Your task to perform on an android device: change the clock display to show seconds Image 0: 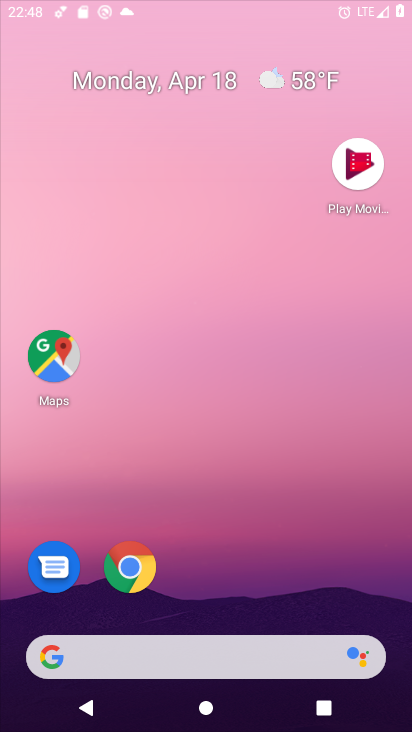
Step 0: click (256, 128)
Your task to perform on an android device: change the clock display to show seconds Image 1: 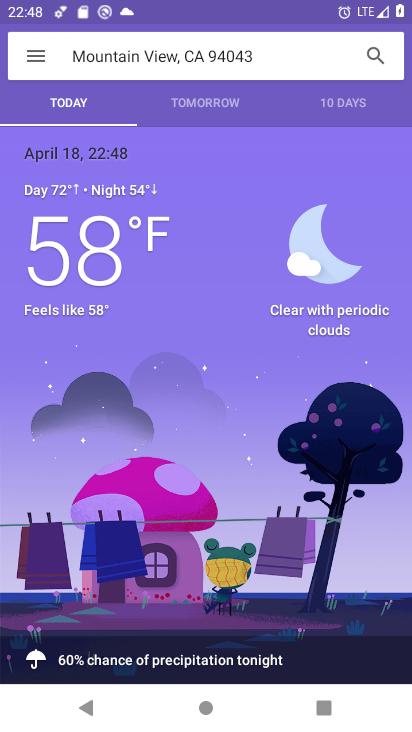
Step 1: press home button
Your task to perform on an android device: change the clock display to show seconds Image 2: 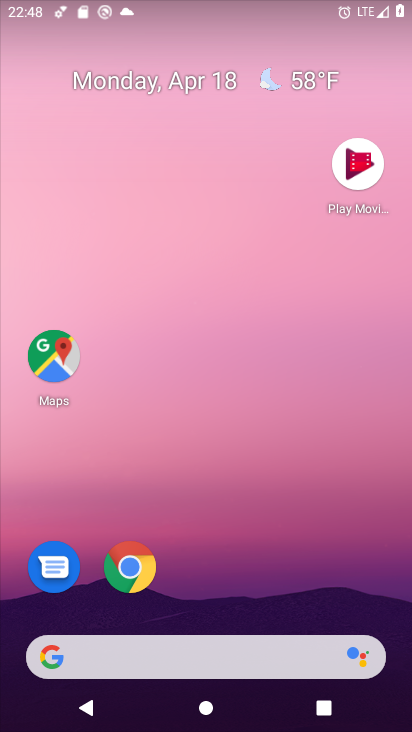
Step 2: drag from (152, 581) to (210, 131)
Your task to perform on an android device: change the clock display to show seconds Image 3: 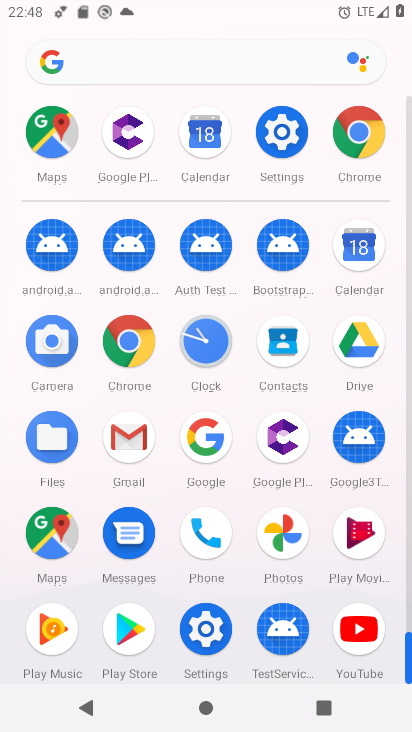
Step 3: click (192, 343)
Your task to perform on an android device: change the clock display to show seconds Image 4: 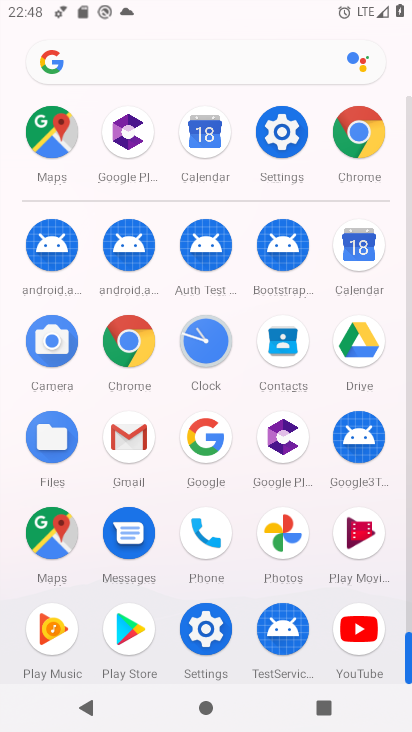
Step 4: click (191, 342)
Your task to perform on an android device: change the clock display to show seconds Image 5: 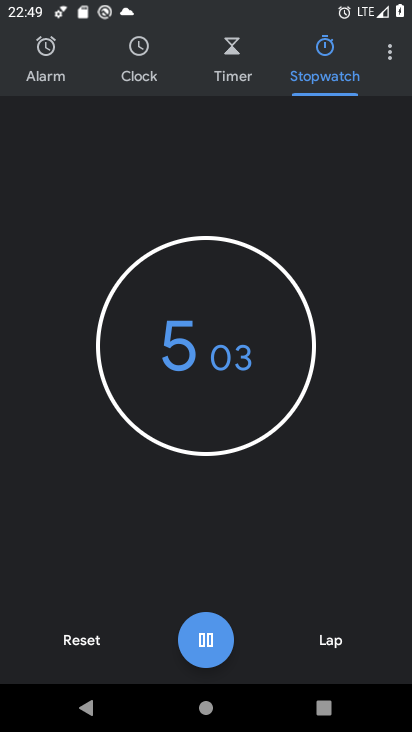
Step 5: click (379, 54)
Your task to perform on an android device: change the clock display to show seconds Image 6: 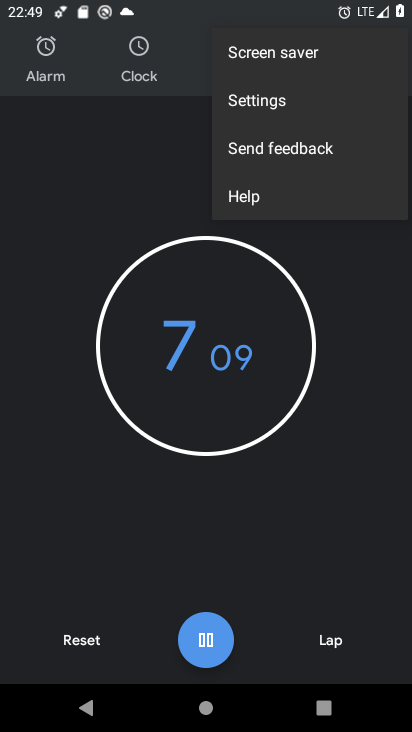
Step 6: click (275, 103)
Your task to perform on an android device: change the clock display to show seconds Image 7: 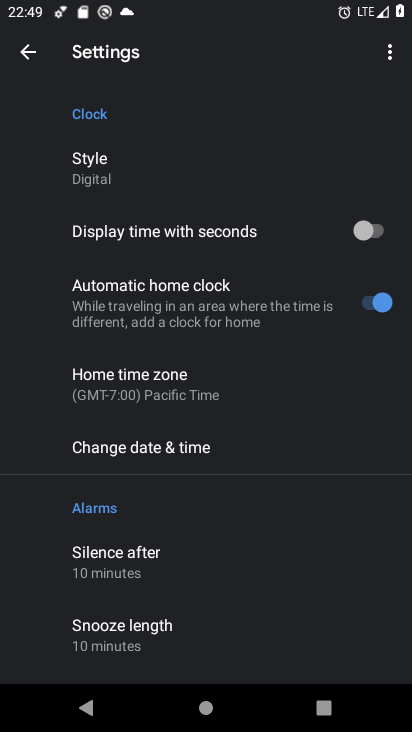
Step 7: click (364, 228)
Your task to perform on an android device: change the clock display to show seconds Image 8: 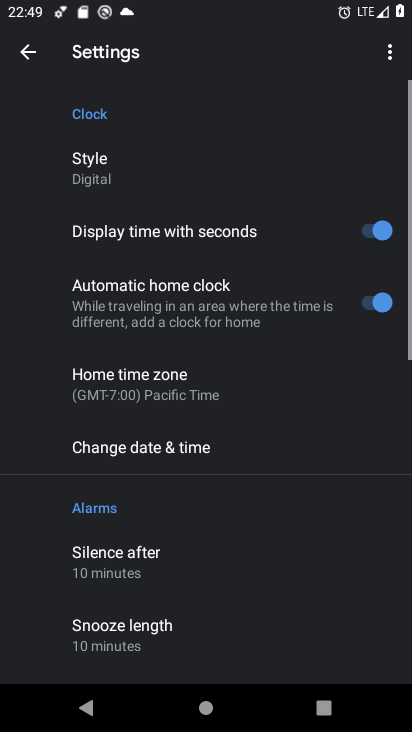
Step 8: task complete